Your task to perform on an android device: Go to Wikipedia Image 0: 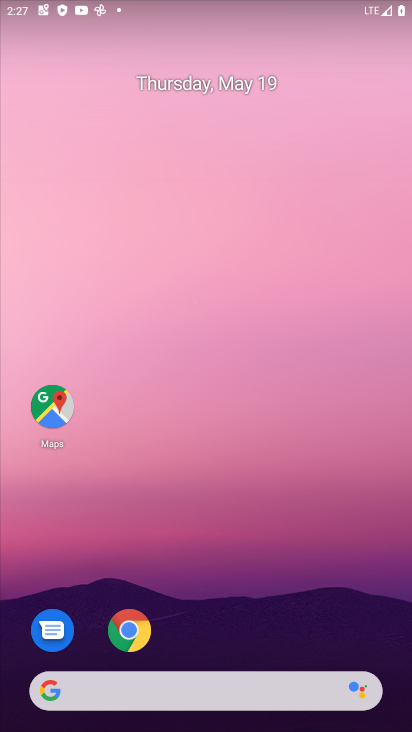
Step 0: click (132, 630)
Your task to perform on an android device: Go to Wikipedia Image 1: 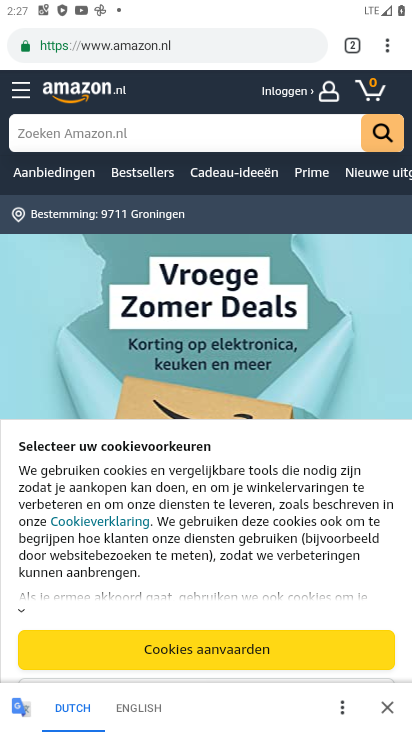
Step 1: click (189, 42)
Your task to perform on an android device: Go to Wikipedia Image 2: 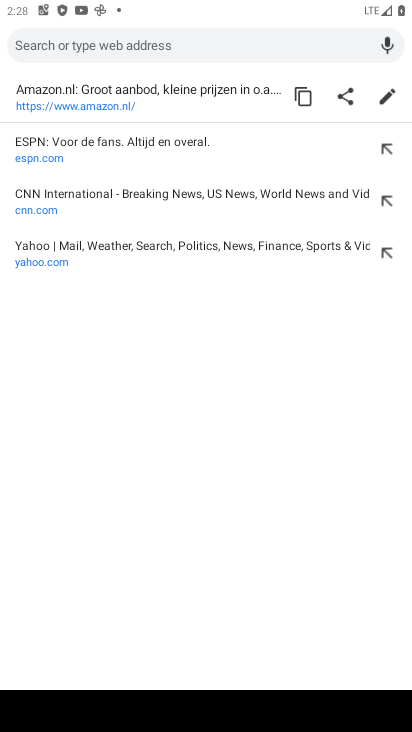
Step 2: type "wikipedia"
Your task to perform on an android device: Go to Wikipedia Image 3: 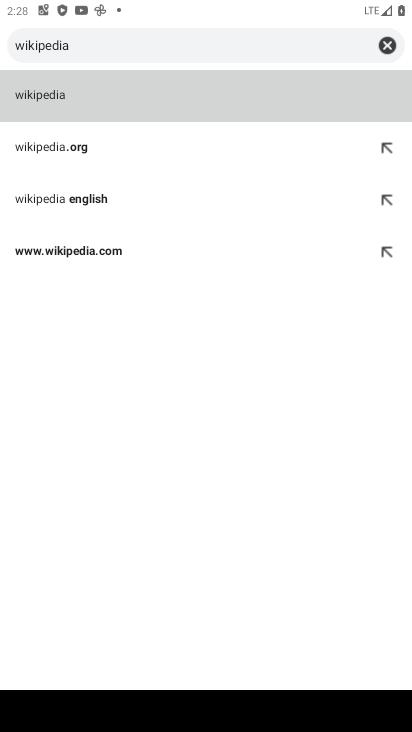
Step 3: click (60, 95)
Your task to perform on an android device: Go to Wikipedia Image 4: 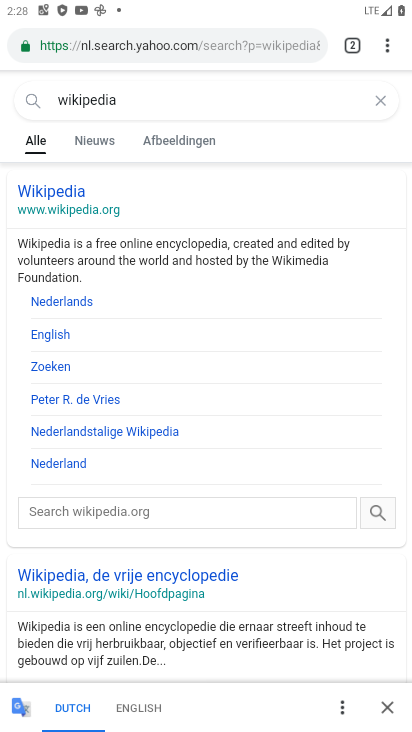
Step 4: click (56, 187)
Your task to perform on an android device: Go to Wikipedia Image 5: 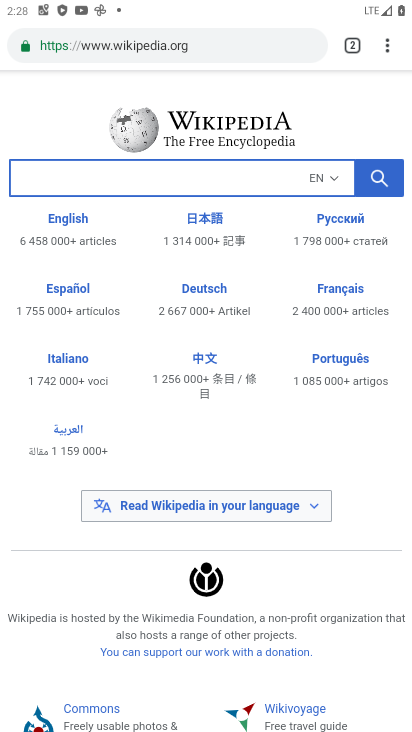
Step 5: task complete